Your task to perform on an android device: open device folders in google photos Image 0: 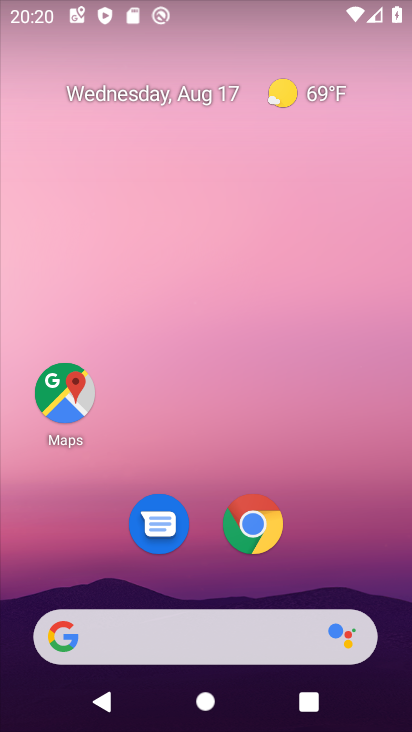
Step 0: drag from (328, 535) to (319, 48)
Your task to perform on an android device: open device folders in google photos Image 1: 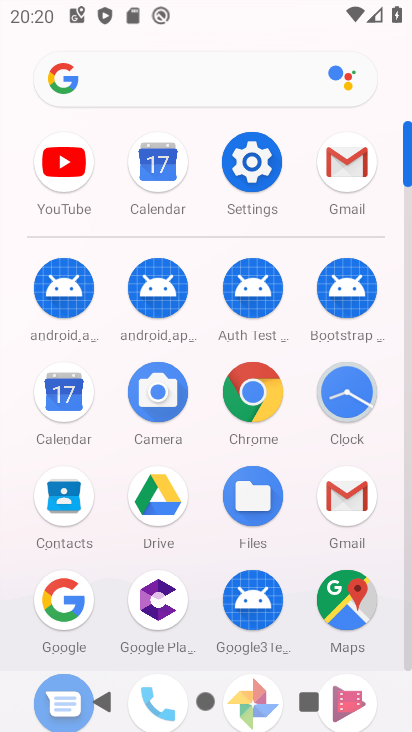
Step 1: drag from (298, 505) to (294, 75)
Your task to perform on an android device: open device folders in google photos Image 2: 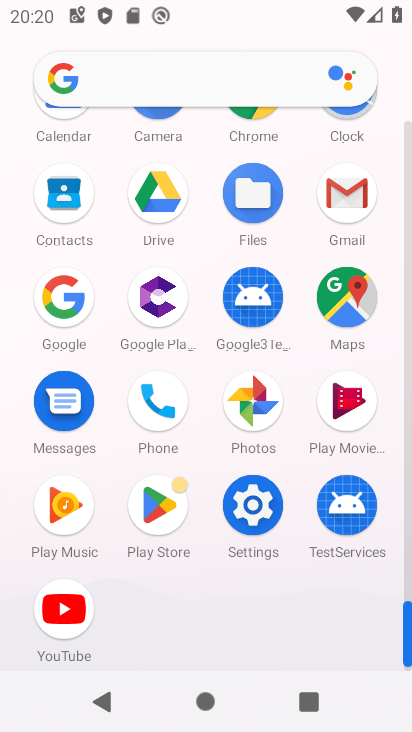
Step 2: click (262, 391)
Your task to perform on an android device: open device folders in google photos Image 3: 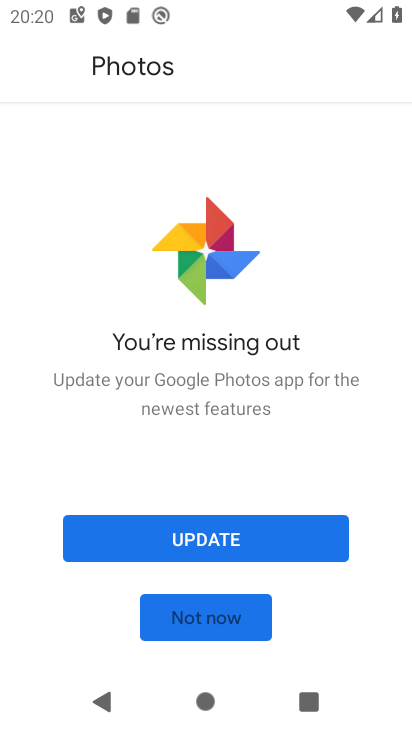
Step 3: click (245, 617)
Your task to perform on an android device: open device folders in google photos Image 4: 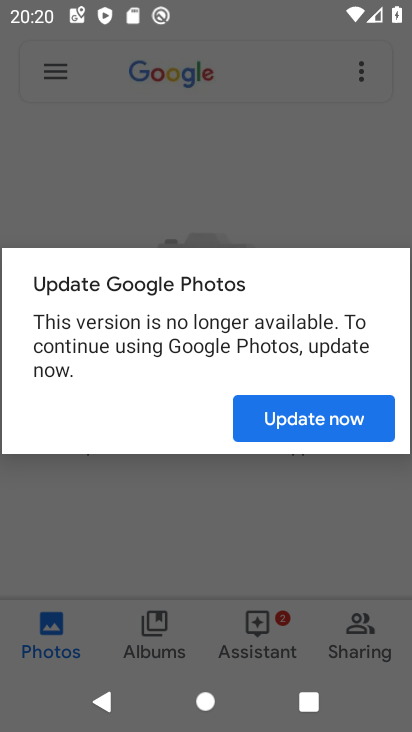
Step 4: click (317, 419)
Your task to perform on an android device: open device folders in google photos Image 5: 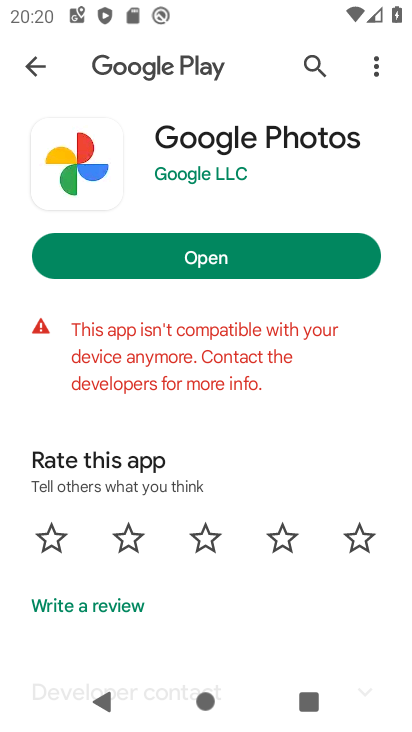
Step 5: click (272, 249)
Your task to perform on an android device: open device folders in google photos Image 6: 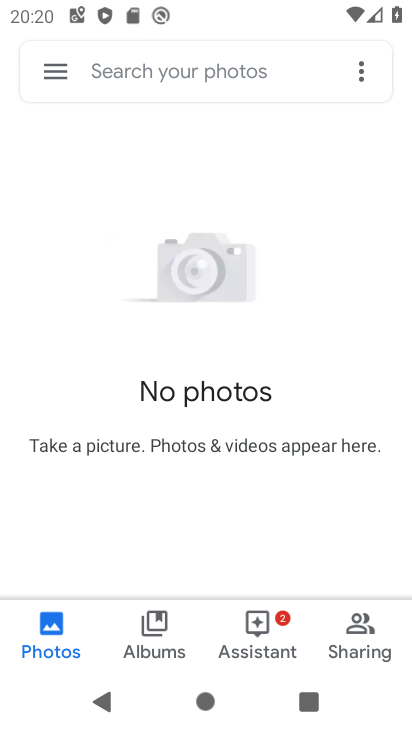
Step 6: click (62, 74)
Your task to perform on an android device: open device folders in google photos Image 7: 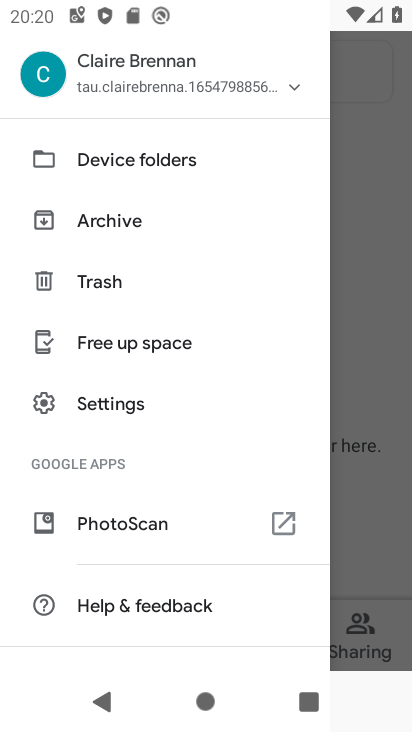
Step 7: click (107, 157)
Your task to perform on an android device: open device folders in google photos Image 8: 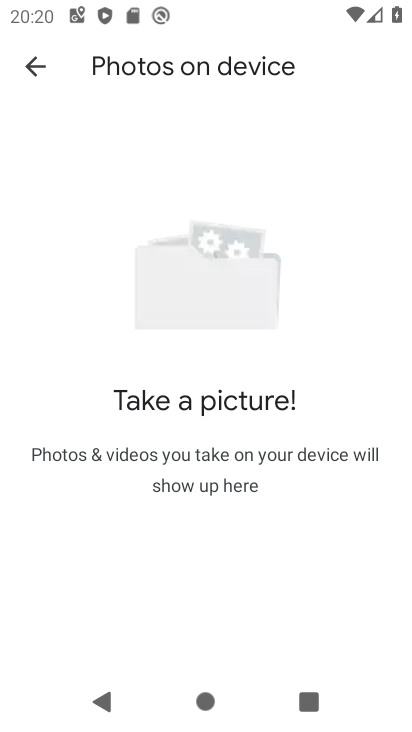
Step 8: task complete